Your task to perform on an android device: Open Google Image 0: 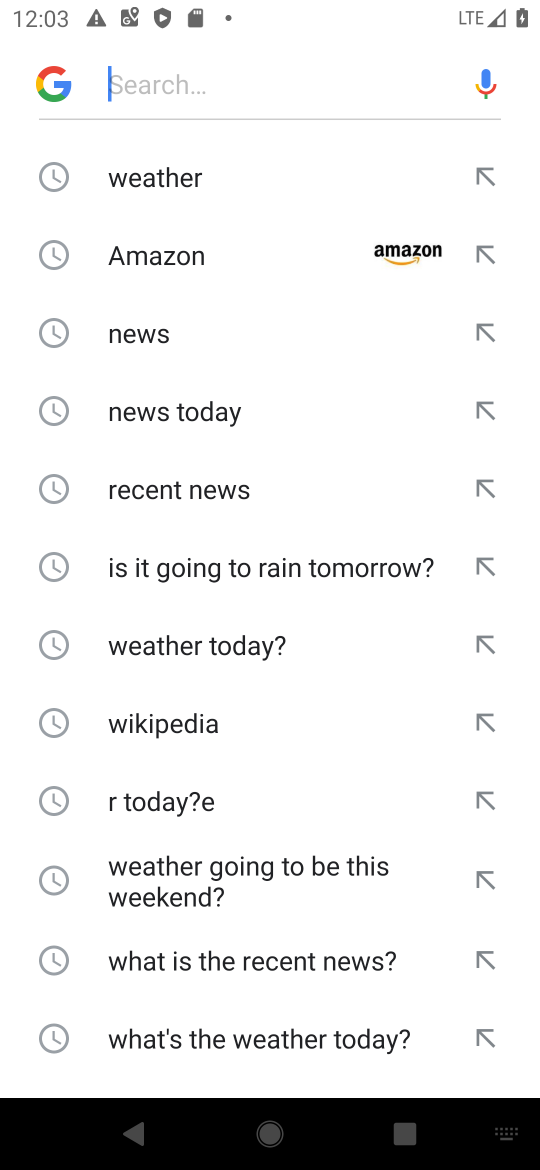
Step 0: press home button
Your task to perform on an android device: Open Google Image 1: 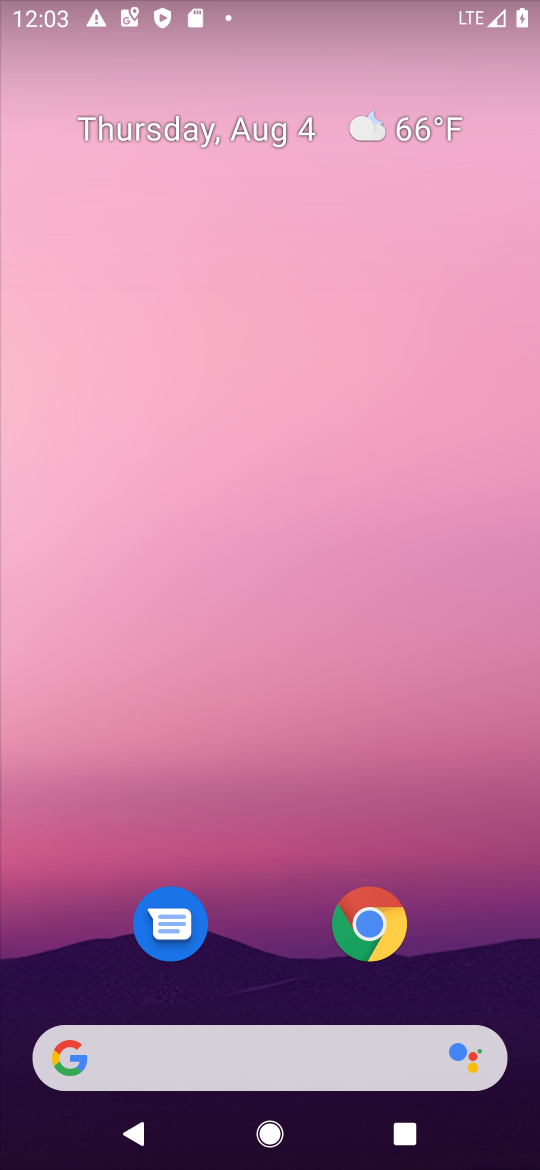
Step 1: click (148, 1050)
Your task to perform on an android device: Open Google Image 2: 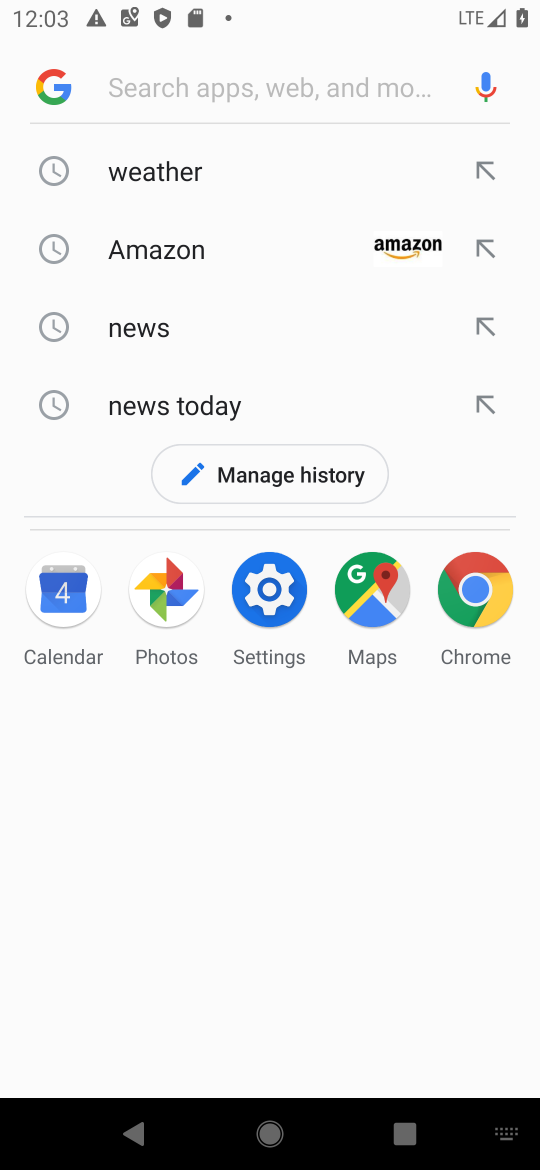
Step 2: task complete